Your task to perform on an android device: change your default location settings in chrome Image 0: 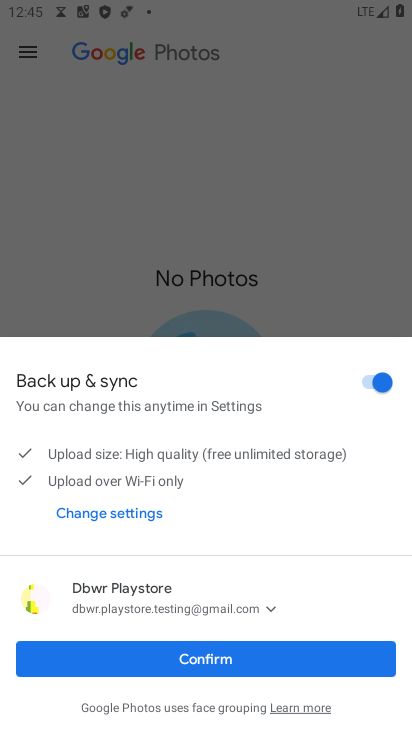
Step 0: press home button
Your task to perform on an android device: change your default location settings in chrome Image 1: 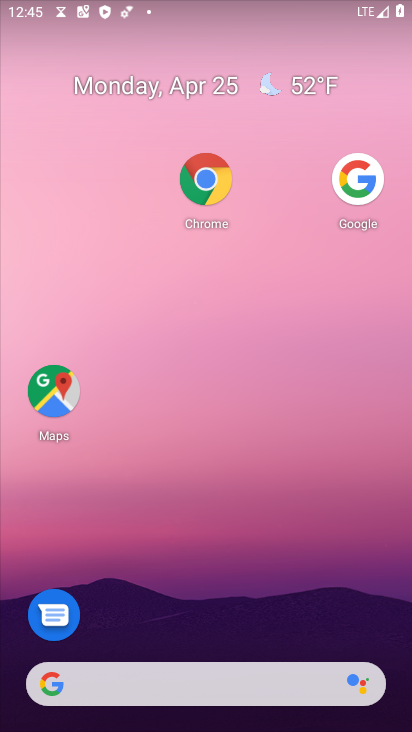
Step 1: drag from (170, 674) to (309, 38)
Your task to perform on an android device: change your default location settings in chrome Image 2: 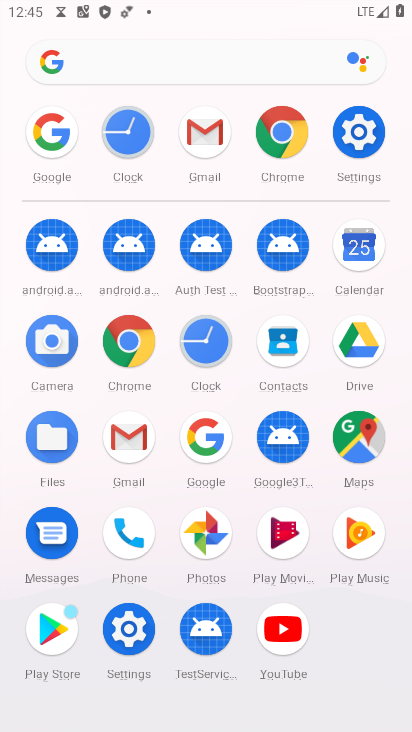
Step 2: click (280, 145)
Your task to perform on an android device: change your default location settings in chrome Image 3: 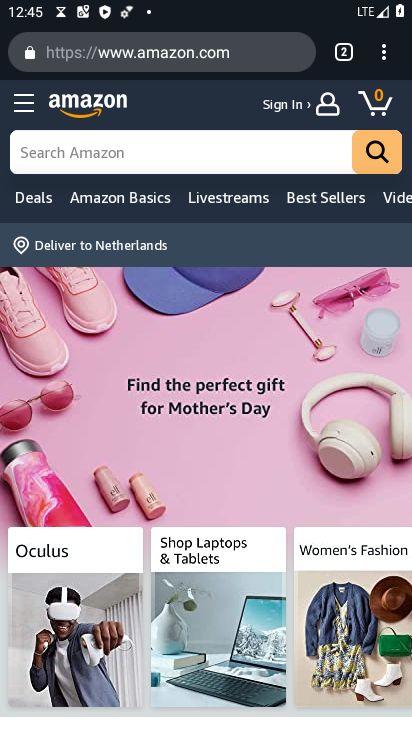
Step 3: drag from (387, 57) to (239, 653)
Your task to perform on an android device: change your default location settings in chrome Image 4: 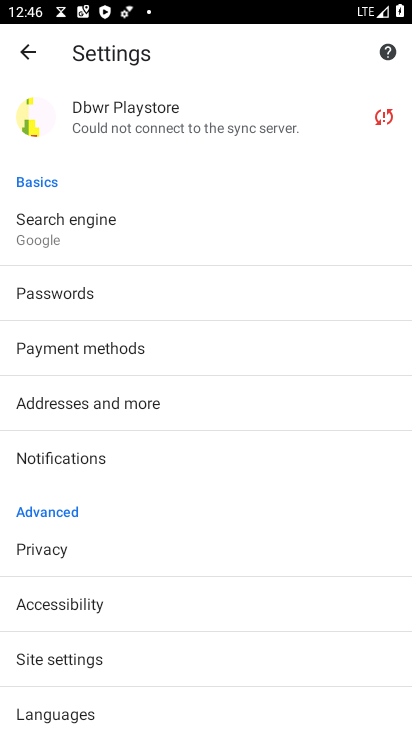
Step 4: click (96, 664)
Your task to perform on an android device: change your default location settings in chrome Image 5: 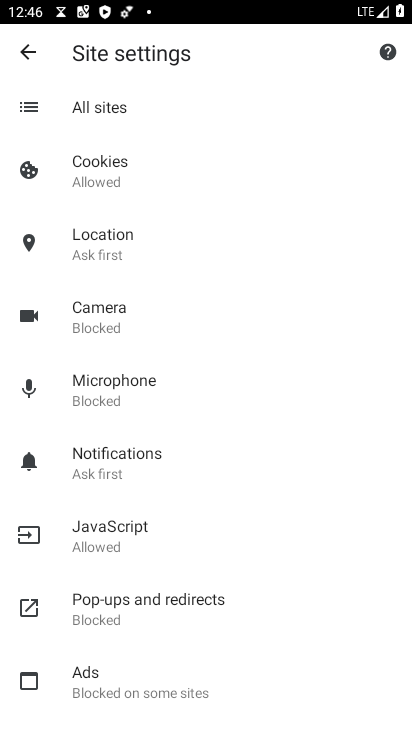
Step 5: click (109, 233)
Your task to perform on an android device: change your default location settings in chrome Image 6: 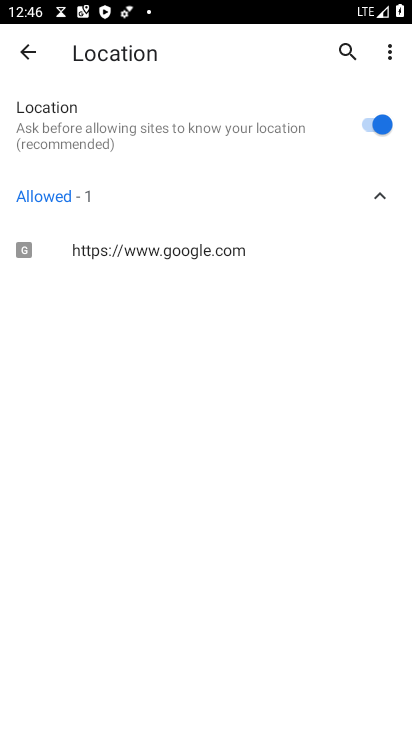
Step 6: click (370, 124)
Your task to perform on an android device: change your default location settings in chrome Image 7: 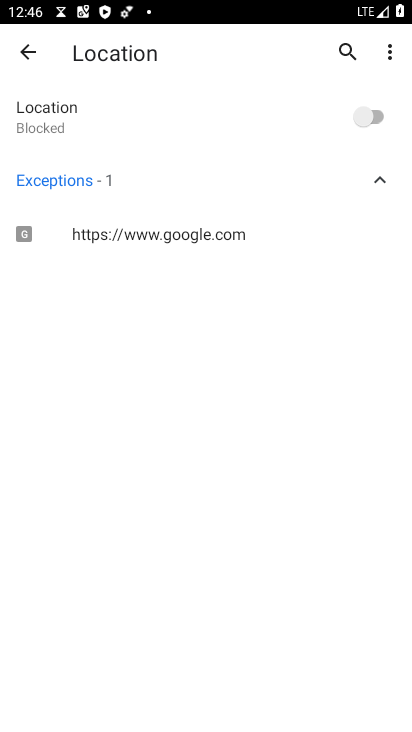
Step 7: task complete